Your task to perform on an android device: Open Google Maps and go to "Timeline" Image 0: 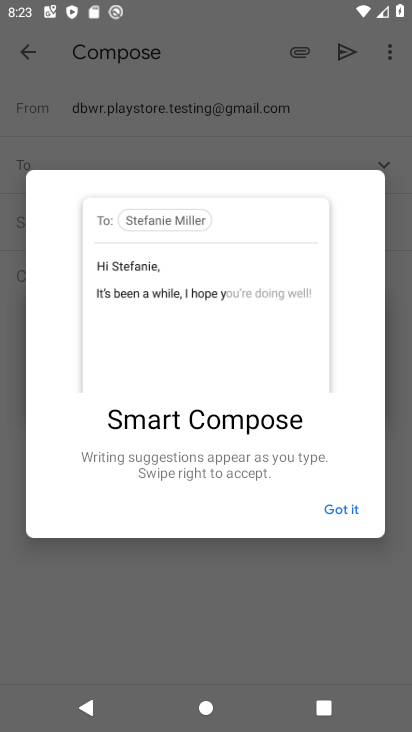
Step 0: press home button
Your task to perform on an android device: Open Google Maps and go to "Timeline" Image 1: 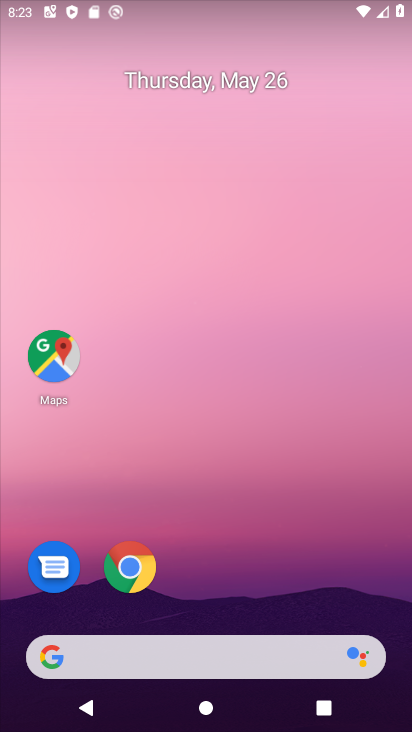
Step 1: click (50, 360)
Your task to perform on an android device: Open Google Maps and go to "Timeline" Image 2: 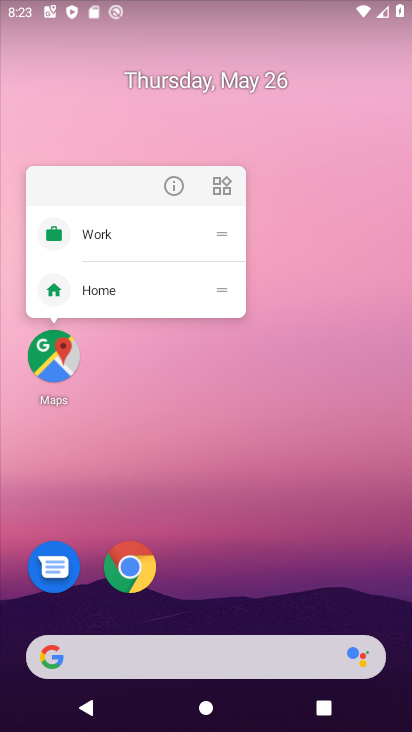
Step 2: click (50, 361)
Your task to perform on an android device: Open Google Maps and go to "Timeline" Image 3: 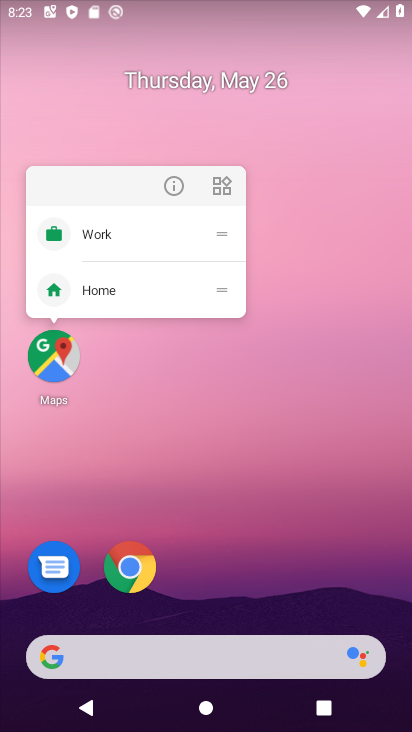
Step 3: click (54, 370)
Your task to perform on an android device: Open Google Maps and go to "Timeline" Image 4: 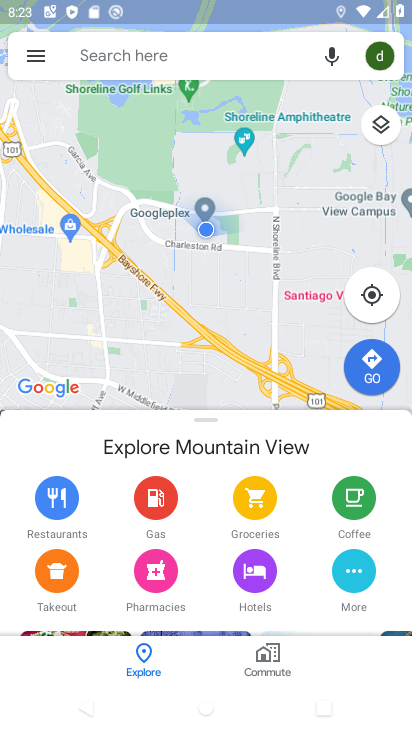
Step 4: click (41, 59)
Your task to perform on an android device: Open Google Maps and go to "Timeline" Image 5: 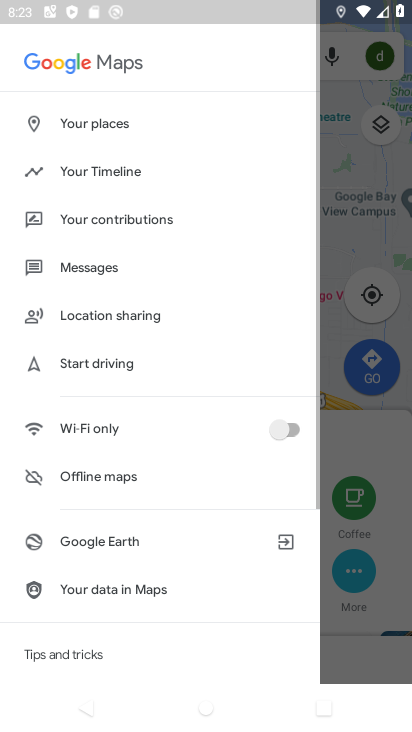
Step 5: click (116, 159)
Your task to perform on an android device: Open Google Maps and go to "Timeline" Image 6: 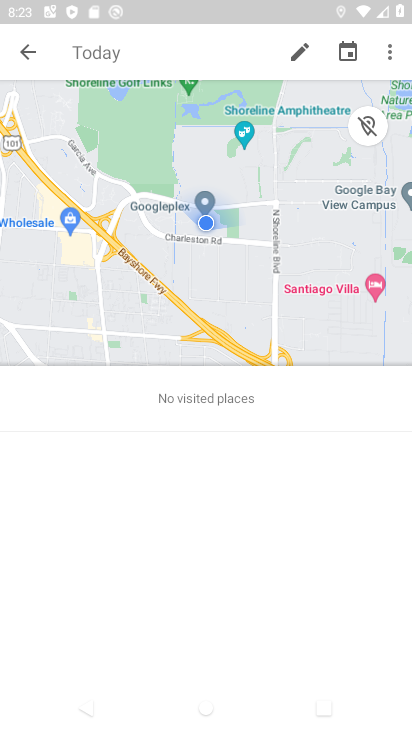
Step 6: task complete